Your task to perform on an android device: open device folders in google photos Image 0: 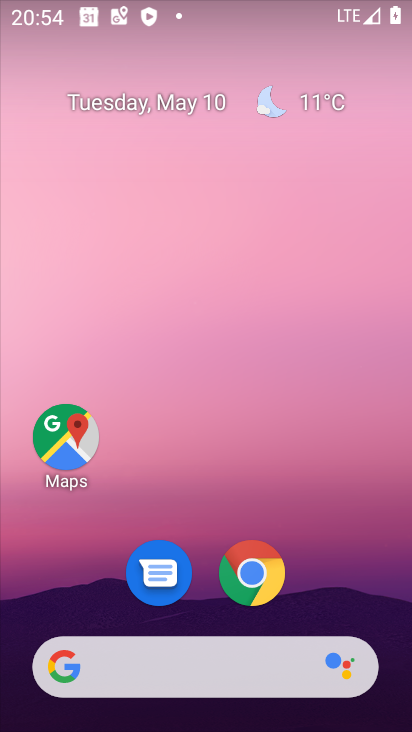
Step 0: drag from (361, 573) to (353, 9)
Your task to perform on an android device: open device folders in google photos Image 1: 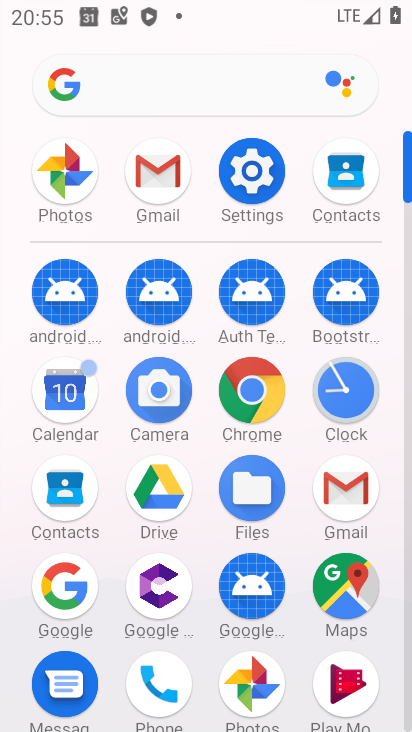
Step 1: click (51, 182)
Your task to perform on an android device: open device folders in google photos Image 2: 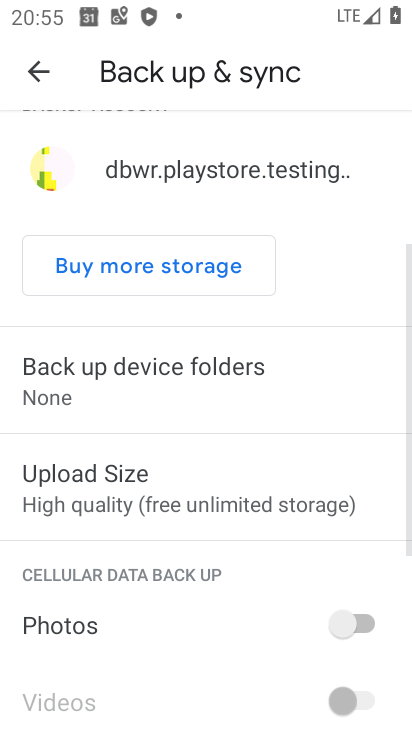
Step 2: click (43, 69)
Your task to perform on an android device: open device folders in google photos Image 3: 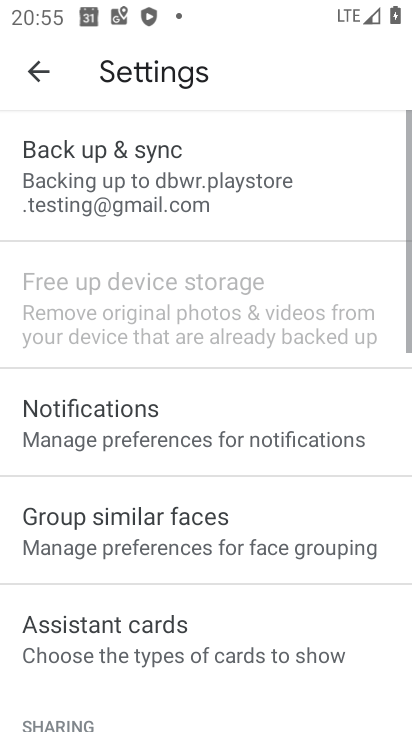
Step 3: click (43, 69)
Your task to perform on an android device: open device folders in google photos Image 4: 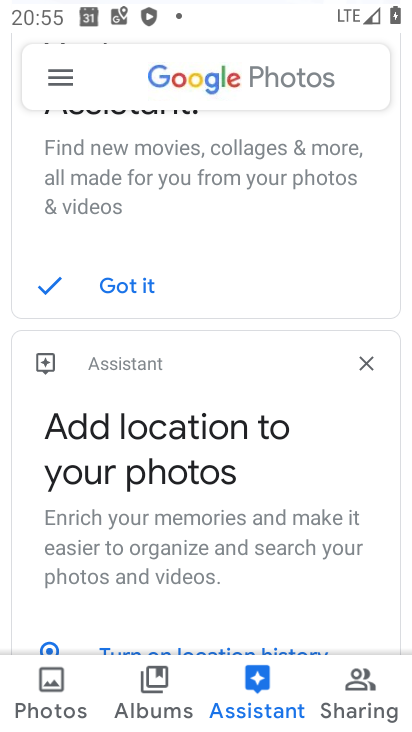
Step 4: click (43, 69)
Your task to perform on an android device: open device folders in google photos Image 5: 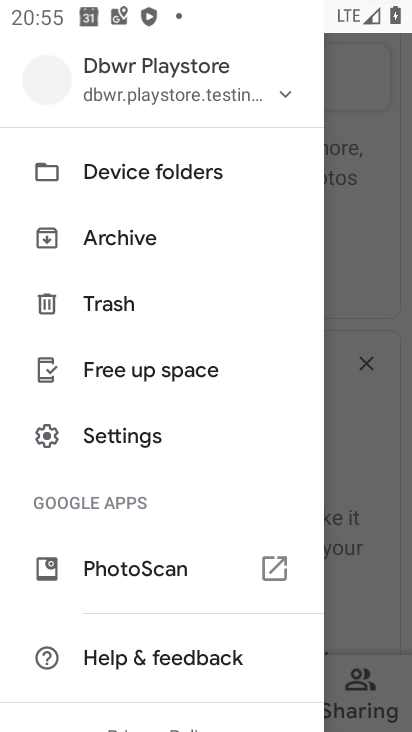
Step 5: click (108, 160)
Your task to perform on an android device: open device folders in google photos Image 6: 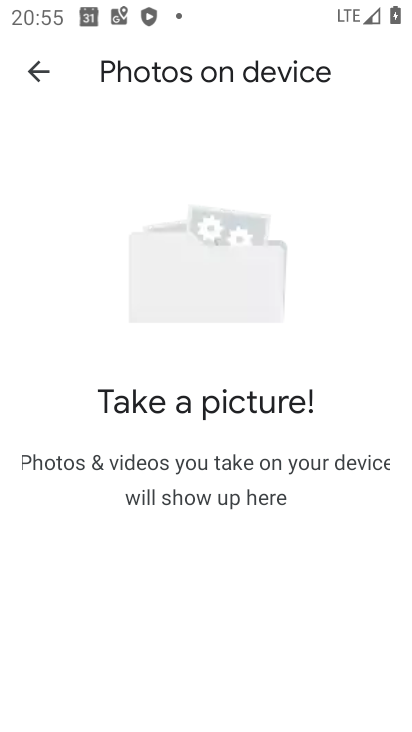
Step 6: task complete